Your task to perform on an android device: Turn on the flashlight Image 0: 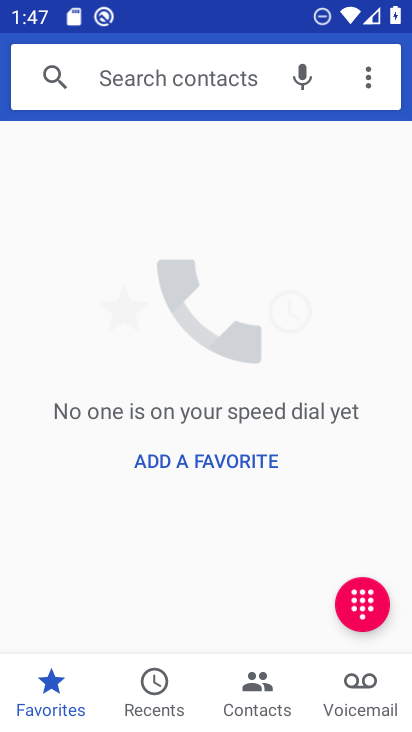
Step 0: drag from (361, 9) to (327, 689)
Your task to perform on an android device: Turn on the flashlight Image 1: 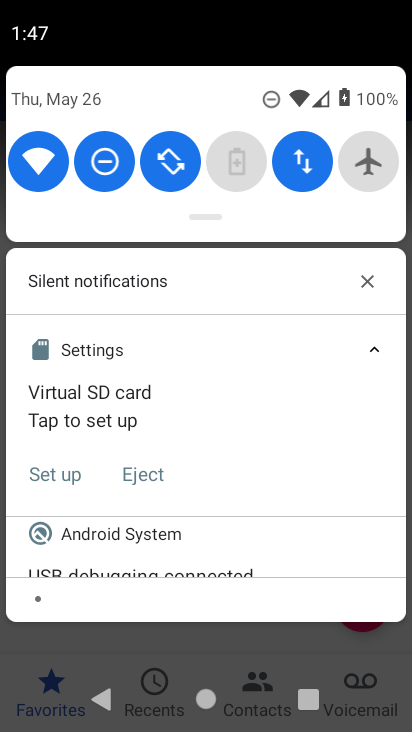
Step 1: drag from (262, 191) to (258, 718)
Your task to perform on an android device: Turn on the flashlight Image 2: 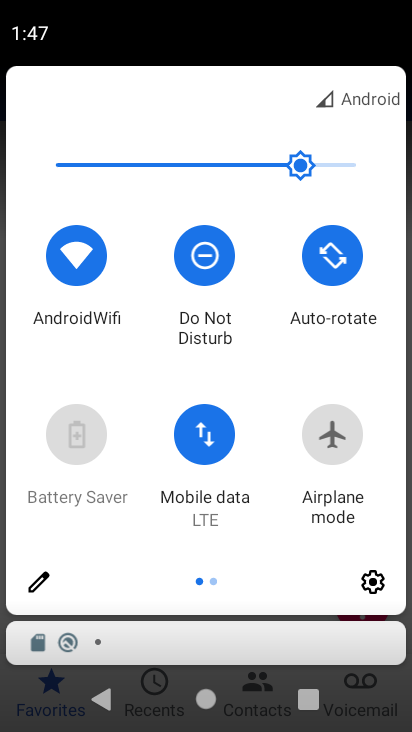
Step 2: click (41, 573)
Your task to perform on an android device: Turn on the flashlight Image 3: 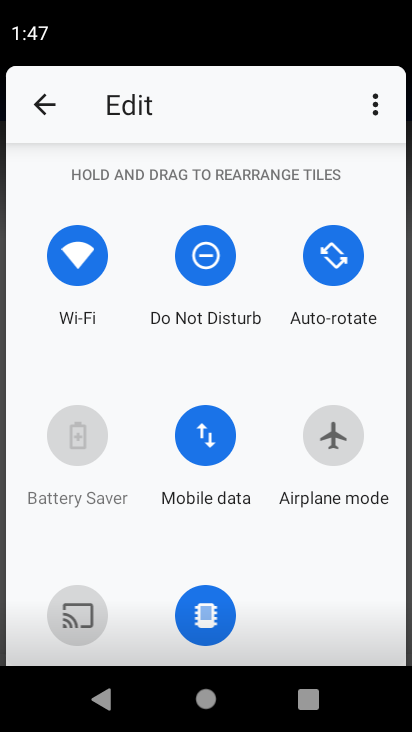
Step 3: task complete